Your task to perform on an android device: Open Reddit.com Image 0: 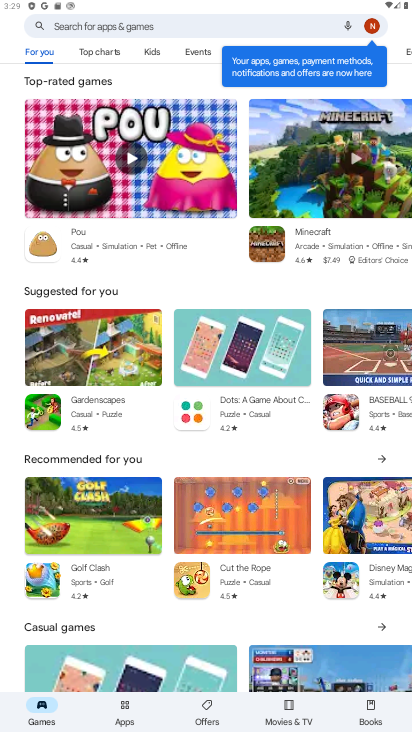
Step 0: press home button
Your task to perform on an android device: Open Reddit.com Image 1: 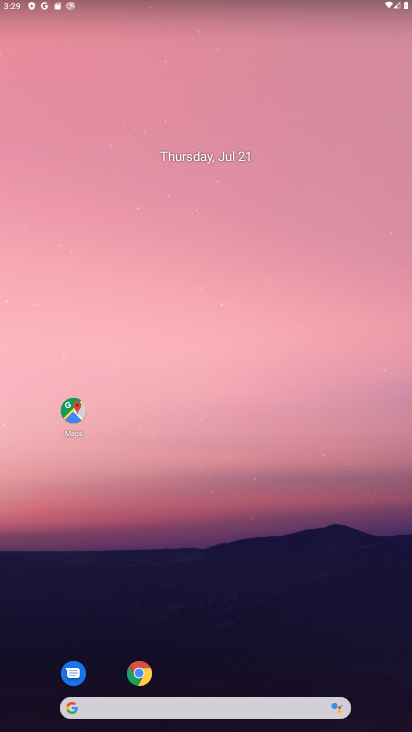
Step 1: drag from (153, 690) to (189, 187)
Your task to perform on an android device: Open Reddit.com Image 2: 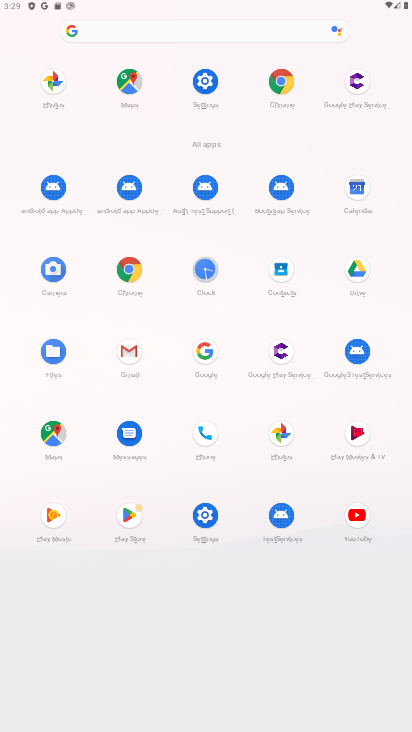
Step 2: click (194, 348)
Your task to perform on an android device: Open Reddit.com Image 3: 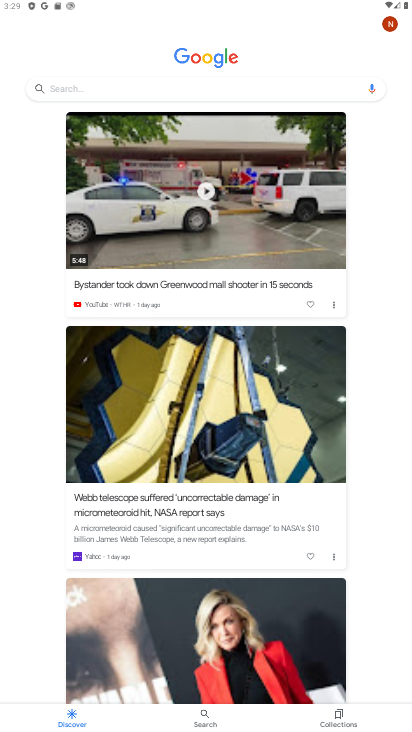
Step 3: click (67, 82)
Your task to perform on an android device: Open Reddit.com Image 4: 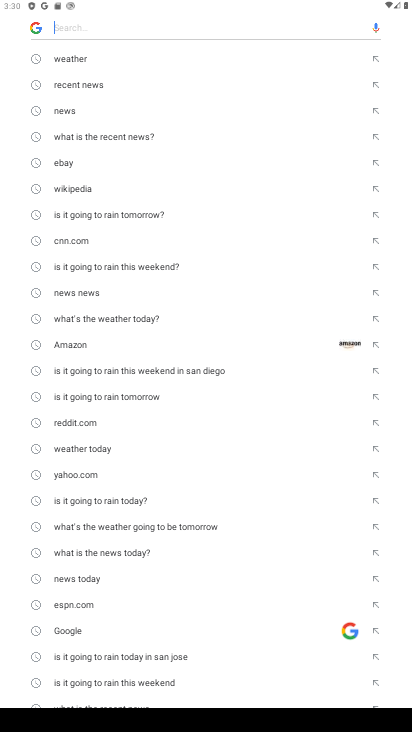
Step 4: click (73, 421)
Your task to perform on an android device: Open Reddit.com Image 5: 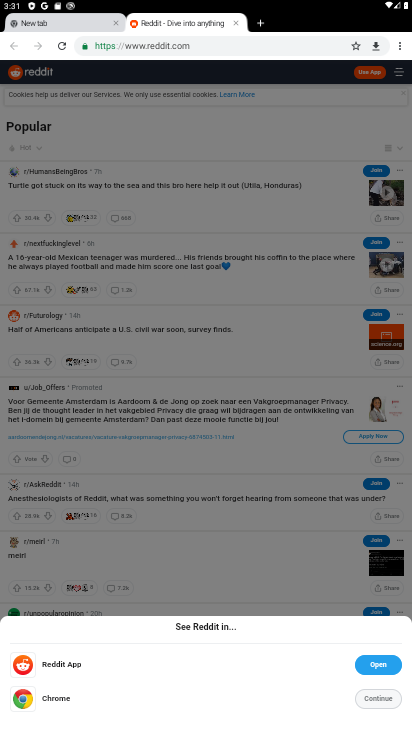
Step 5: task complete